Your task to perform on an android device: Open Android settings Image 0: 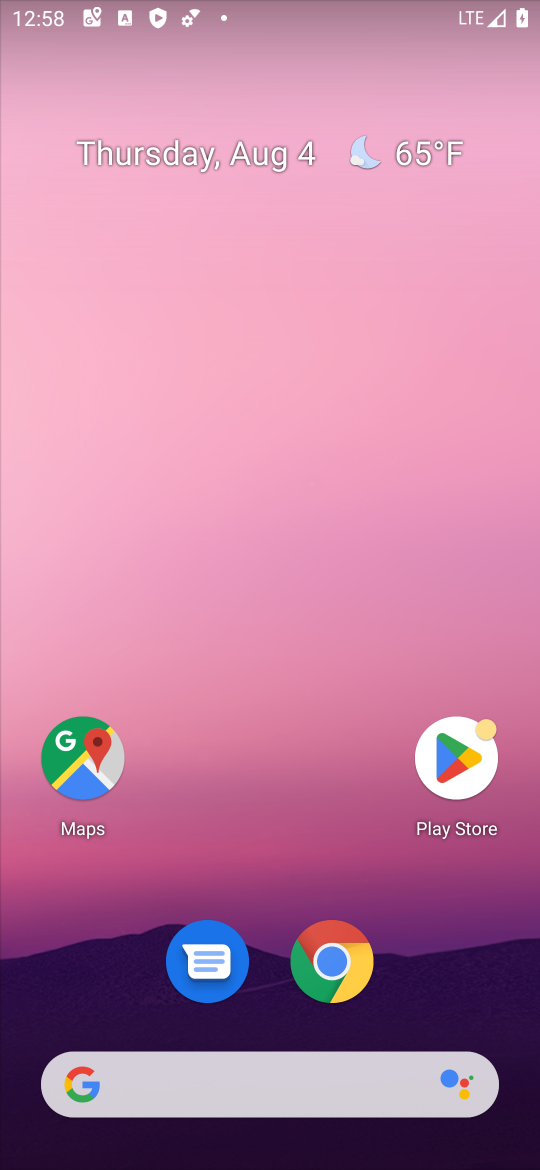
Step 0: drag from (283, 813) to (415, 27)
Your task to perform on an android device: Open Android settings Image 1: 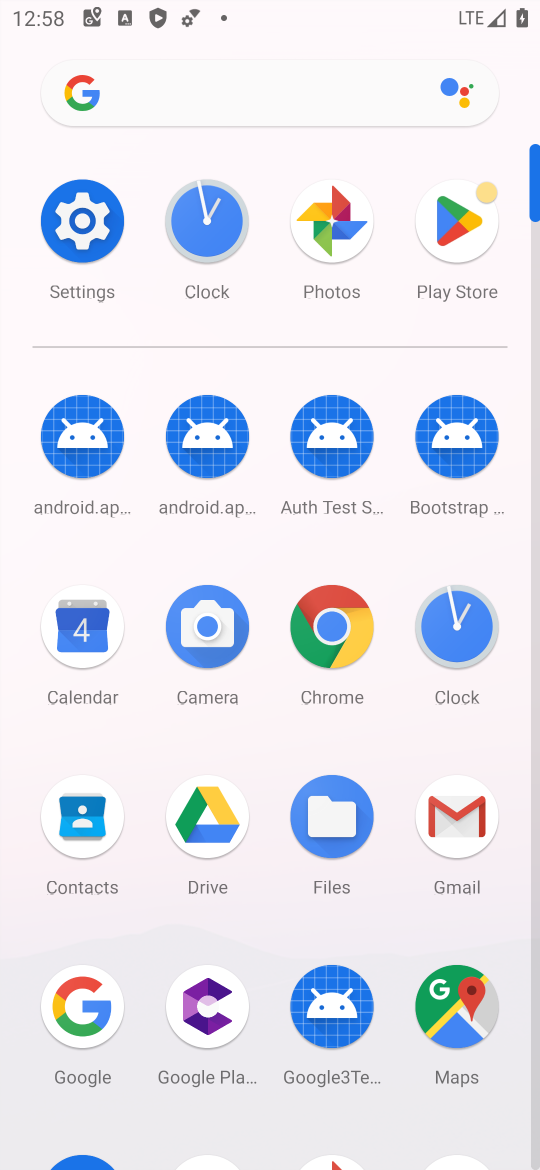
Step 1: click (65, 202)
Your task to perform on an android device: Open Android settings Image 2: 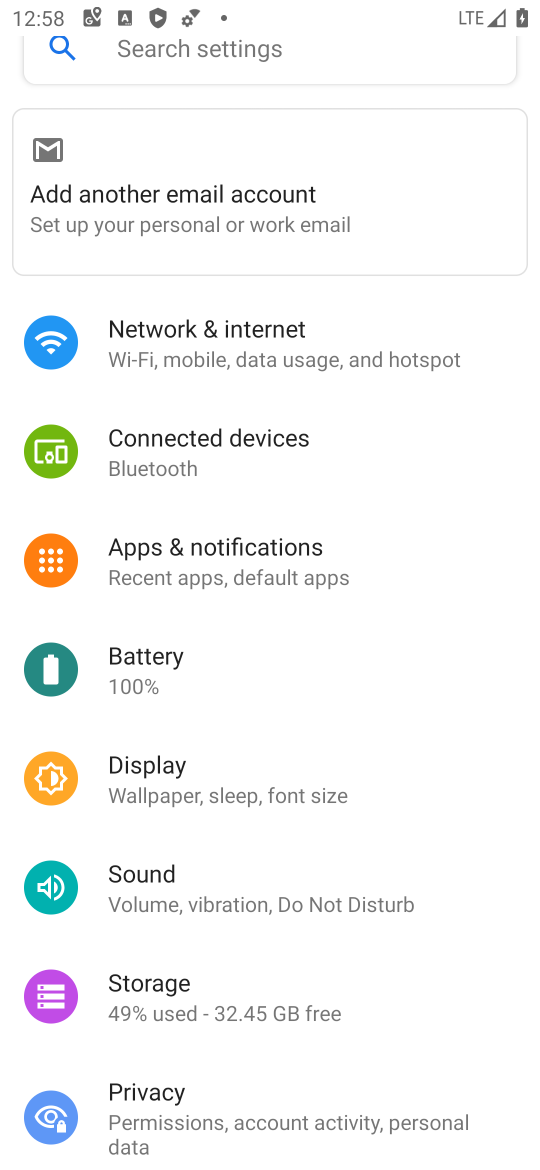
Step 2: drag from (221, 884) to (448, 40)
Your task to perform on an android device: Open Android settings Image 3: 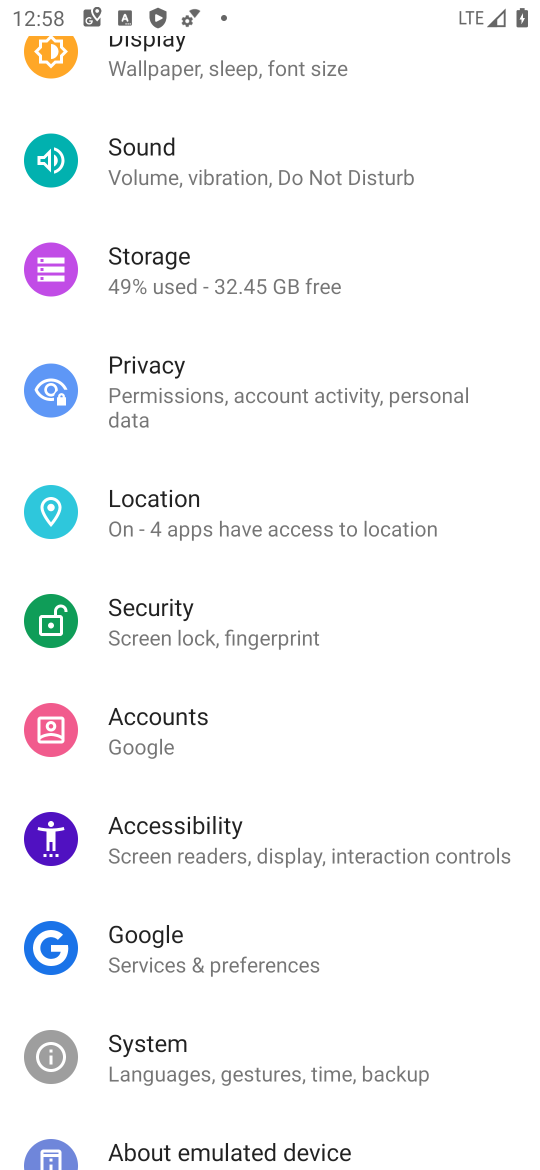
Step 3: click (187, 1141)
Your task to perform on an android device: Open Android settings Image 4: 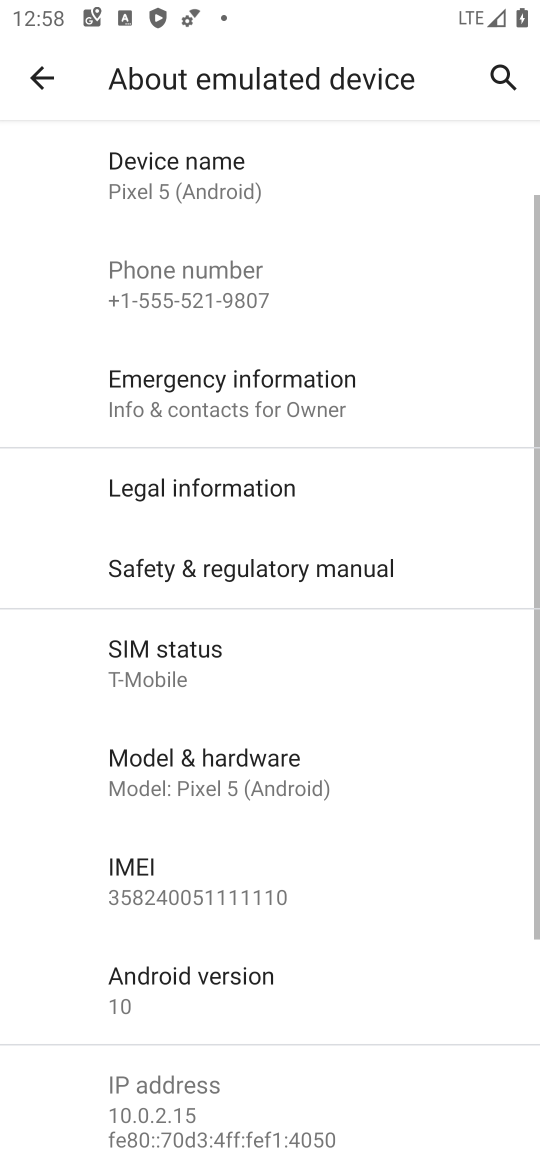
Step 4: task complete